Your task to perform on an android device: toggle wifi Image 0: 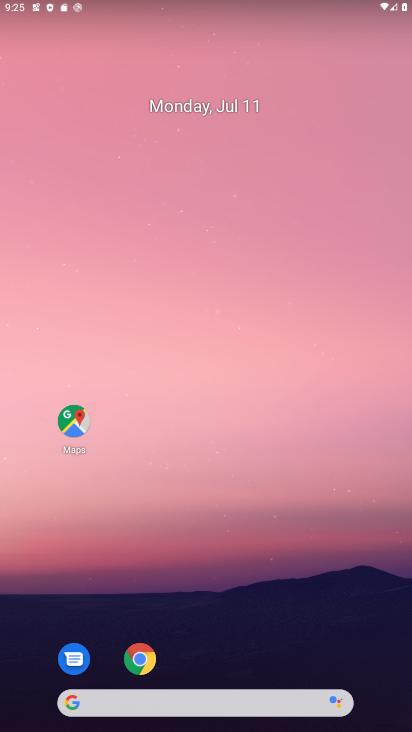
Step 0: drag from (225, 634) to (199, 123)
Your task to perform on an android device: toggle wifi Image 1: 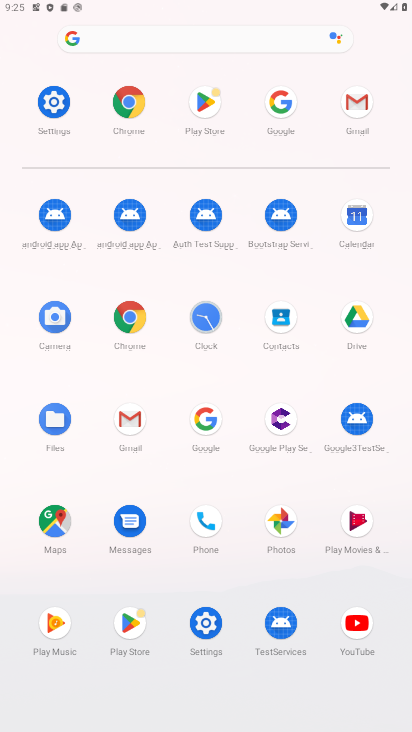
Step 1: click (52, 98)
Your task to perform on an android device: toggle wifi Image 2: 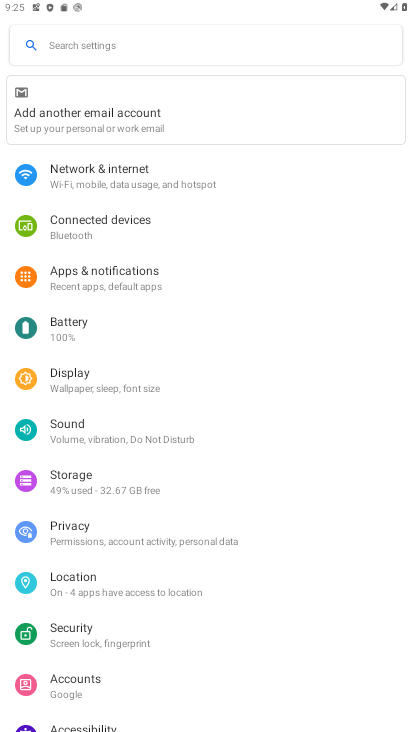
Step 2: click (90, 169)
Your task to perform on an android device: toggle wifi Image 3: 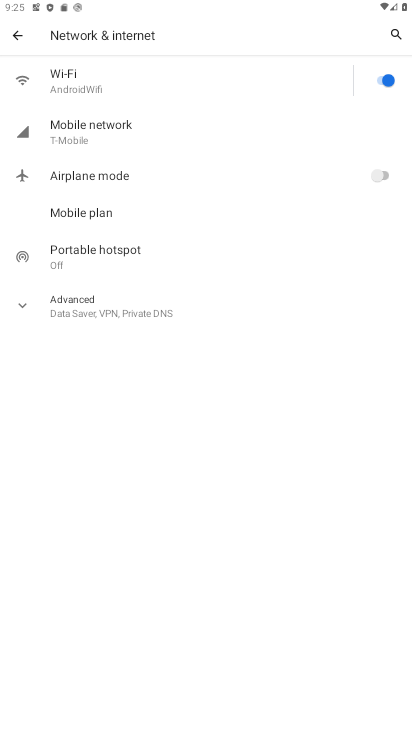
Step 3: click (383, 75)
Your task to perform on an android device: toggle wifi Image 4: 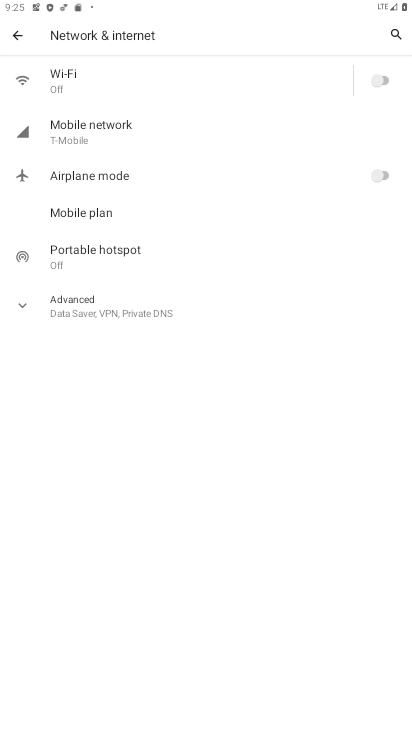
Step 4: task complete